Your task to perform on an android device: Open location settings Image 0: 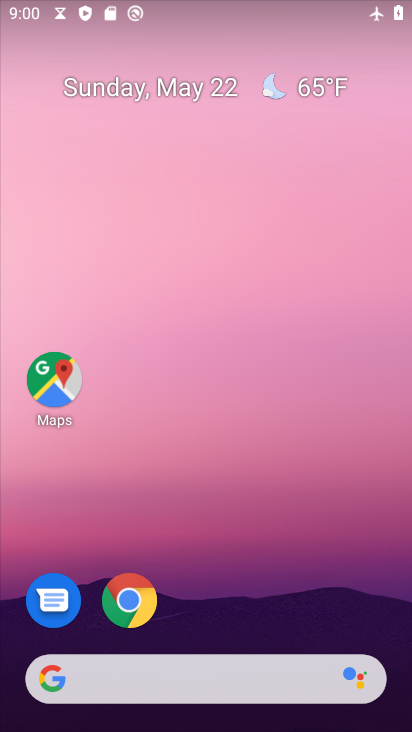
Step 0: drag from (287, 615) to (251, 110)
Your task to perform on an android device: Open location settings Image 1: 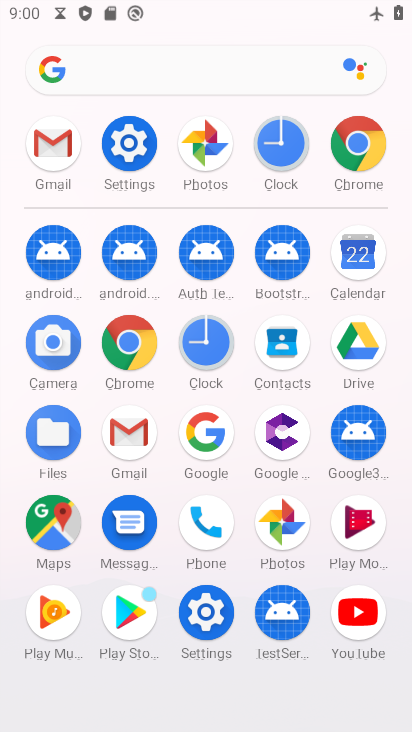
Step 1: click (120, 147)
Your task to perform on an android device: Open location settings Image 2: 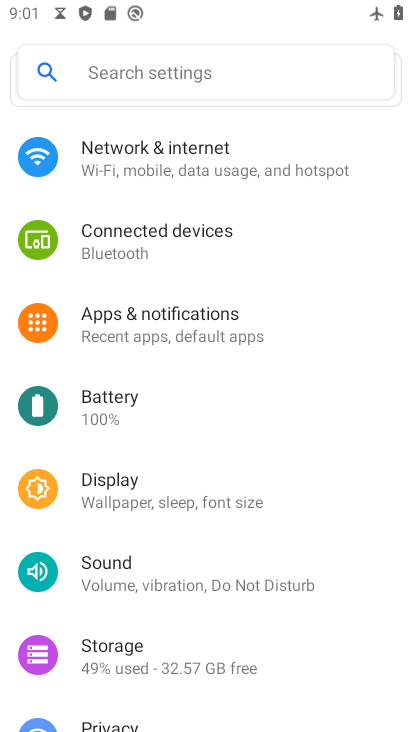
Step 2: drag from (191, 646) to (160, 268)
Your task to perform on an android device: Open location settings Image 3: 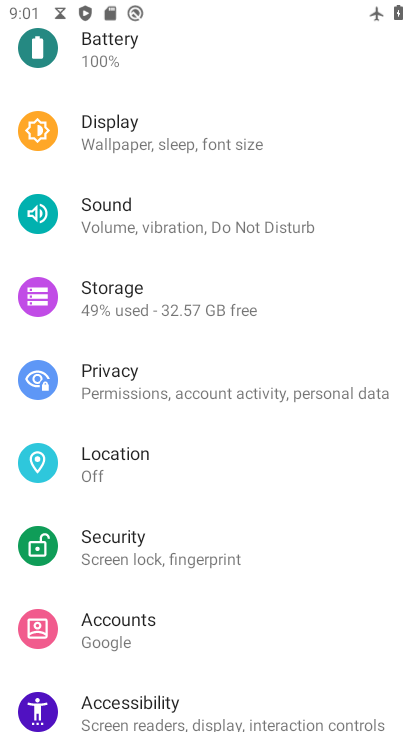
Step 3: drag from (158, 637) to (166, 324)
Your task to perform on an android device: Open location settings Image 4: 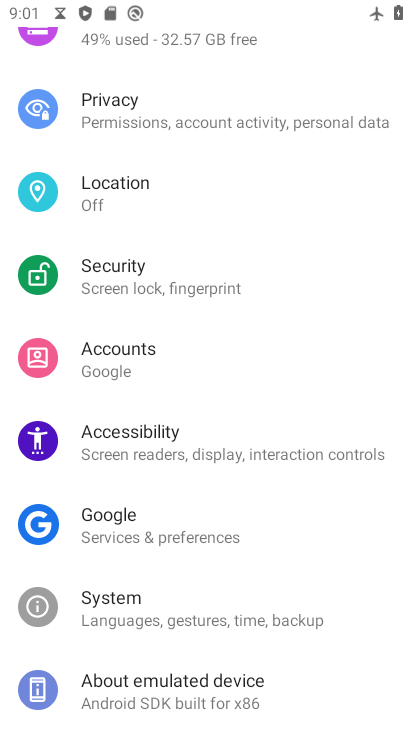
Step 4: click (110, 198)
Your task to perform on an android device: Open location settings Image 5: 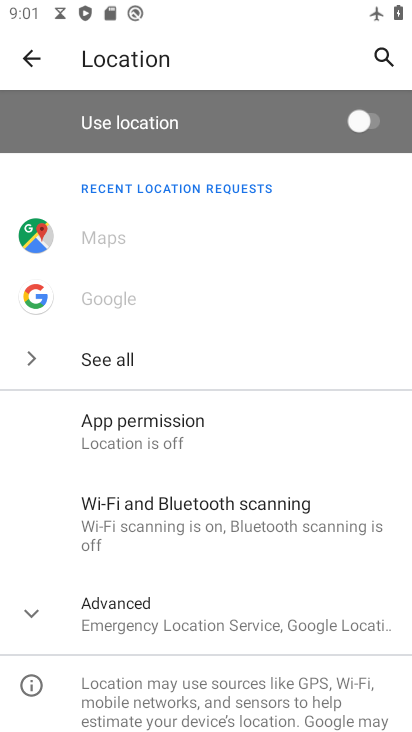
Step 5: task complete